Your task to perform on an android device: toggle wifi Image 0: 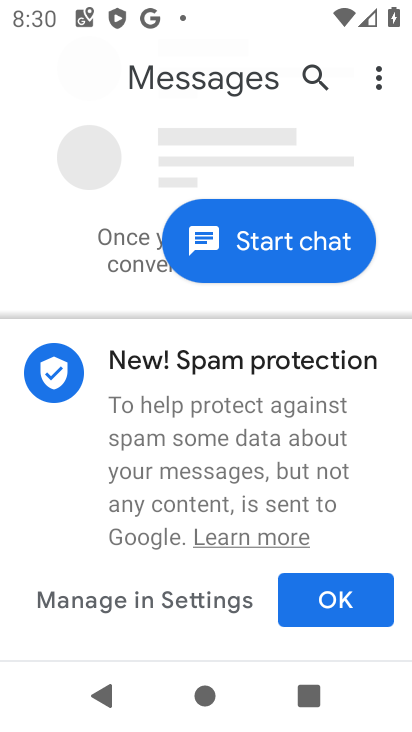
Step 0: press back button
Your task to perform on an android device: toggle wifi Image 1: 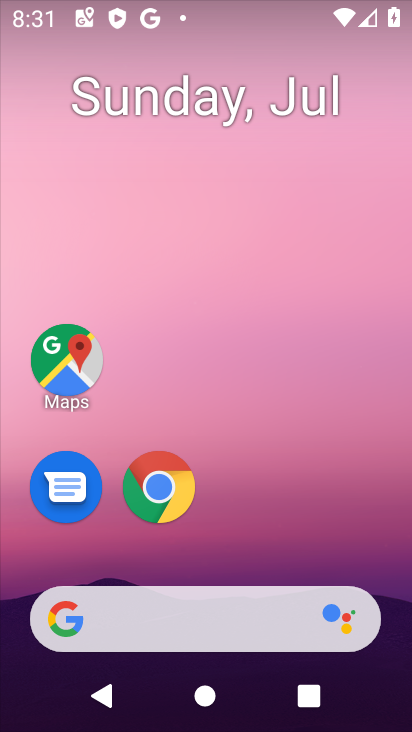
Step 1: drag from (155, 11) to (136, 541)
Your task to perform on an android device: toggle wifi Image 2: 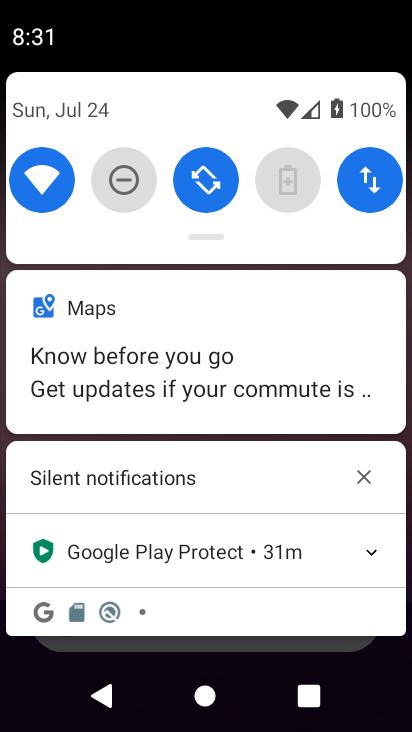
Step 2: click (43, 177)
Your task to perform on an android device: toggle wifi Image 3: 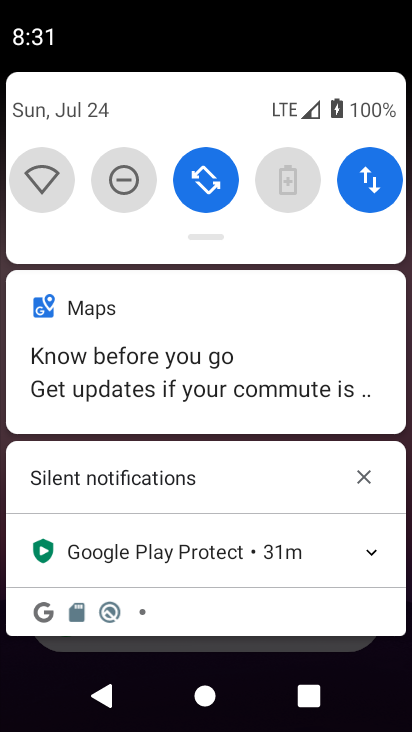
Step 3: task complete